Your task to perform on an android device: set the timer Image 0: 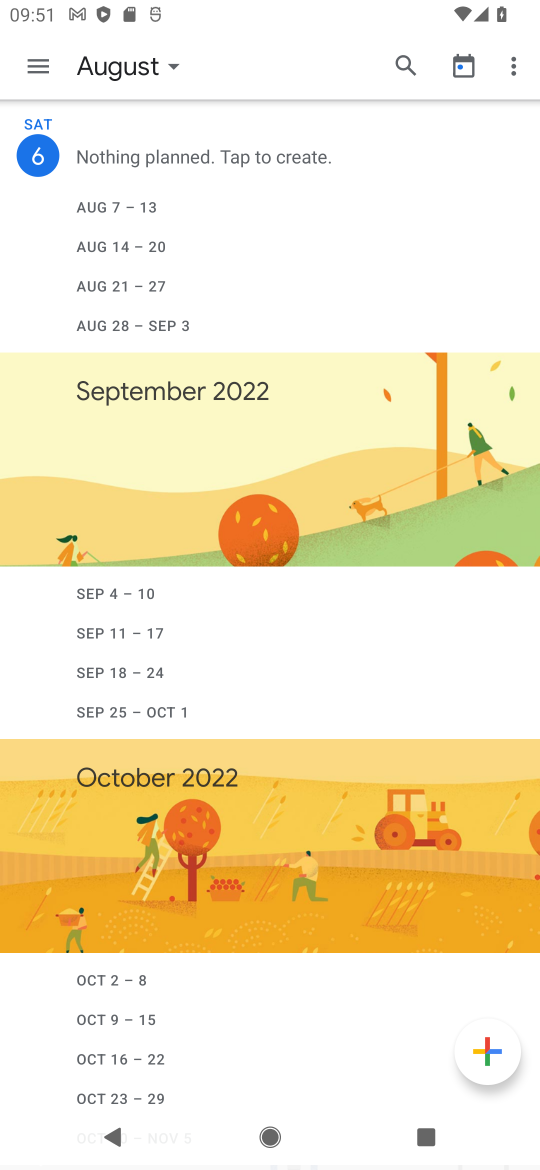
Step 0: press home button
Your task to perform on an android device: set the timer Image 1: 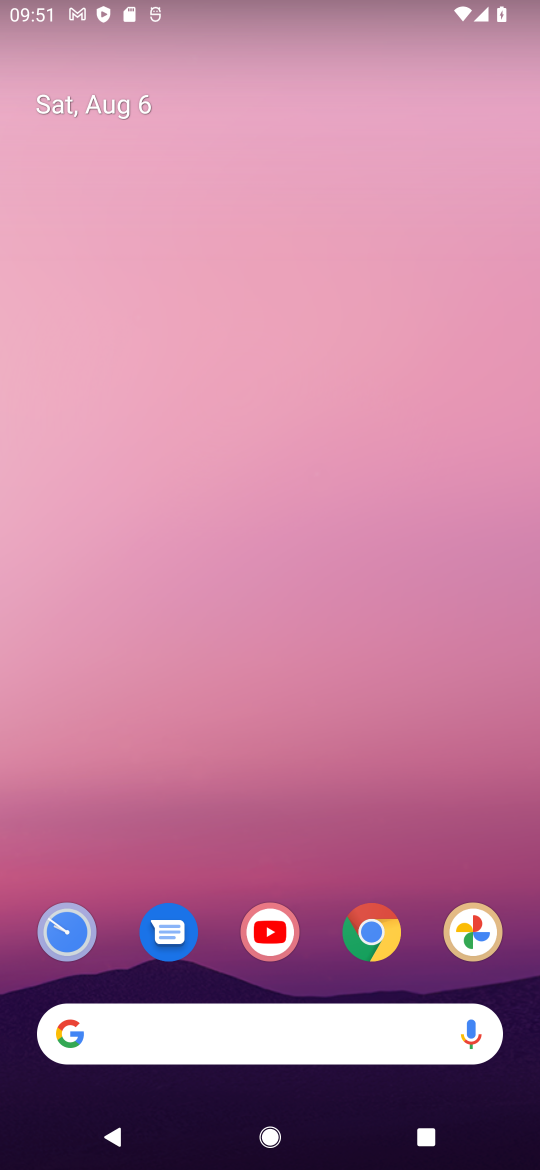
Step 1: drag from (393, 840) to (257, 55)
Your task to perform on an android device: set the timer Image 2: 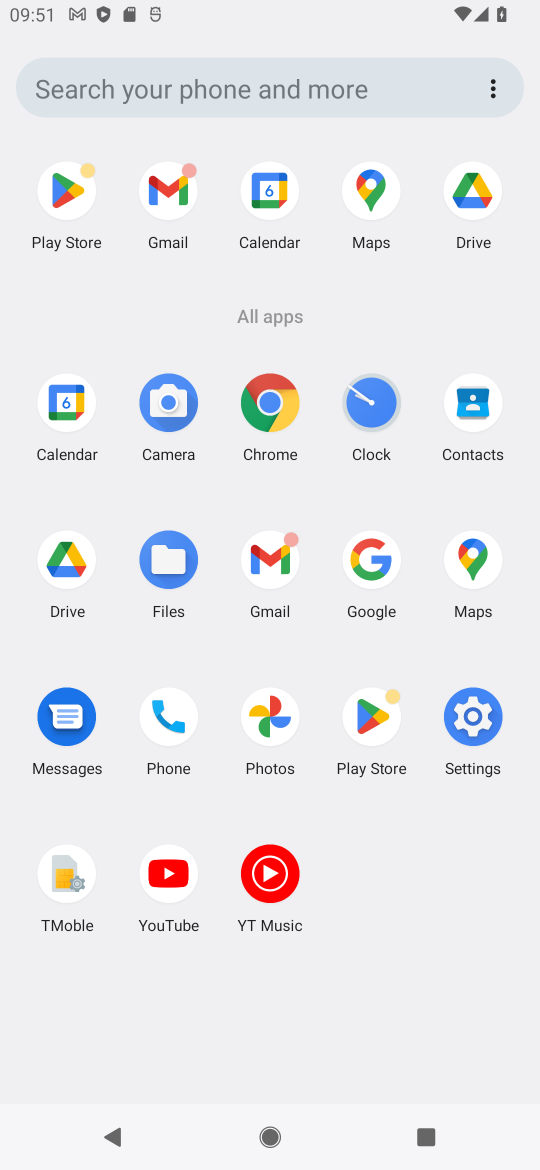
Step 2: click (379, 405)
Your task to perform on an android device: set the timer Image 3: 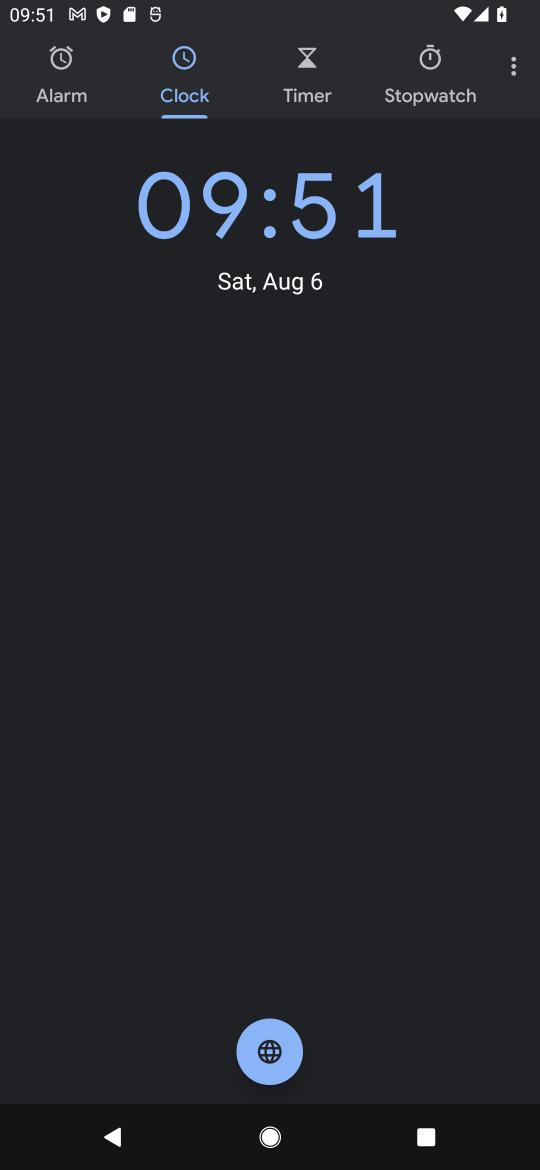
Step 3: click (299, 77)
Your task to perform on an android device: set the timer Image 4: 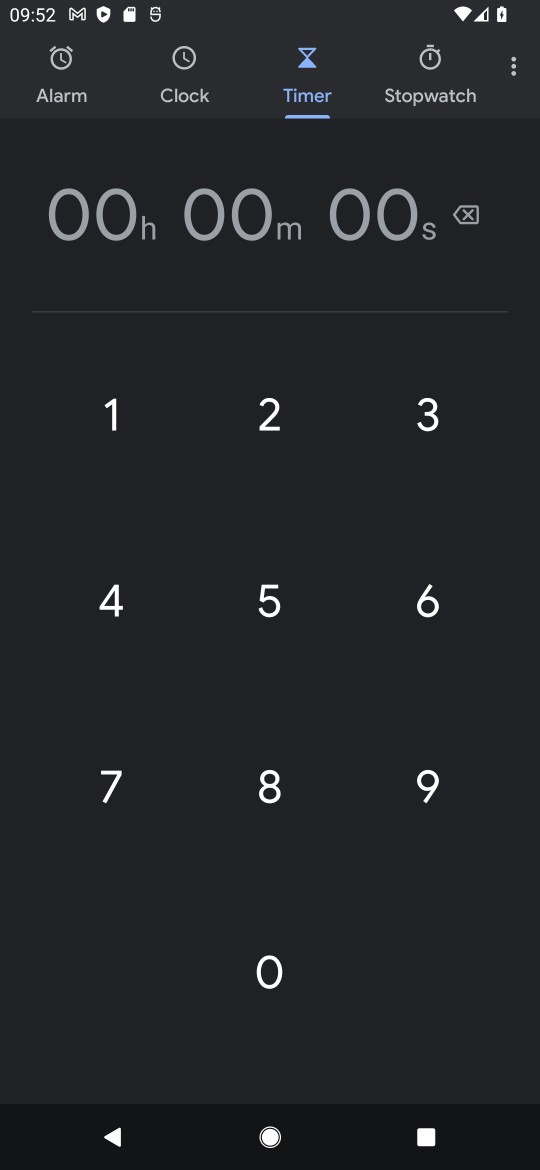
Step 4: type "76876876"
Your task to perform on an android device: set the timer Image 5: 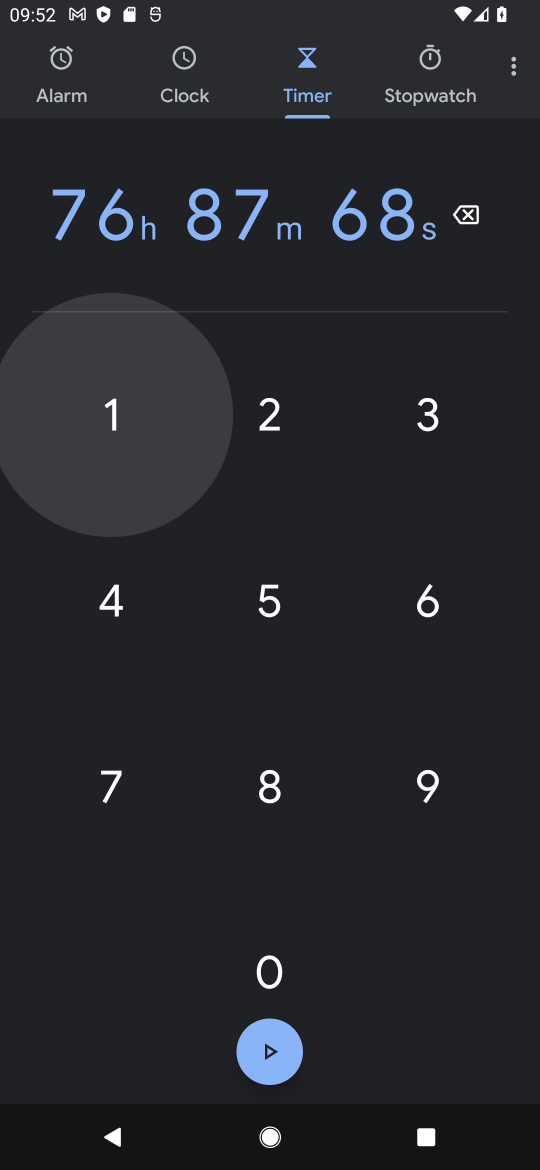
Step 5: click (258, 1070)
Your task to perform on an android device: set the timer Image 6: 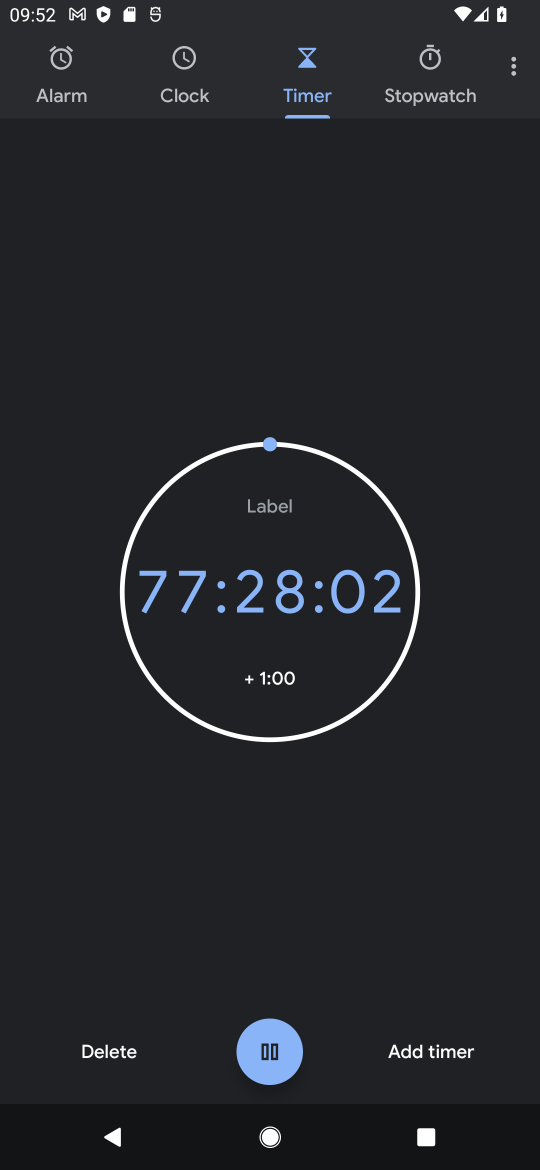
Step 6: task complete